Your task to perform on an android device: make emails show in primary in the gmail app Image 0: 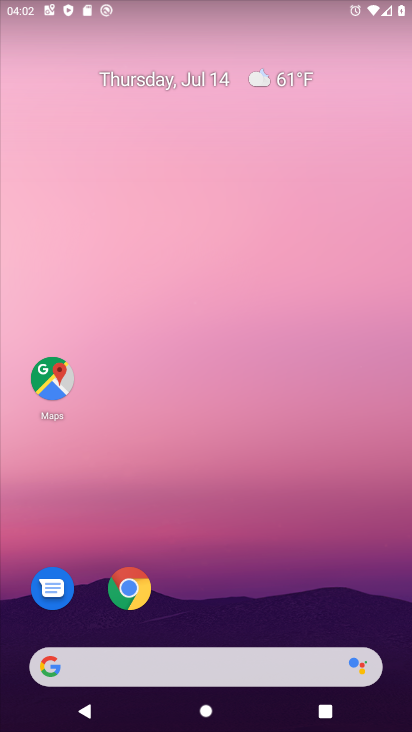
Step 0: press home button
Your task to perform on an android device: make emails show in primary in the gmail app Image 1: 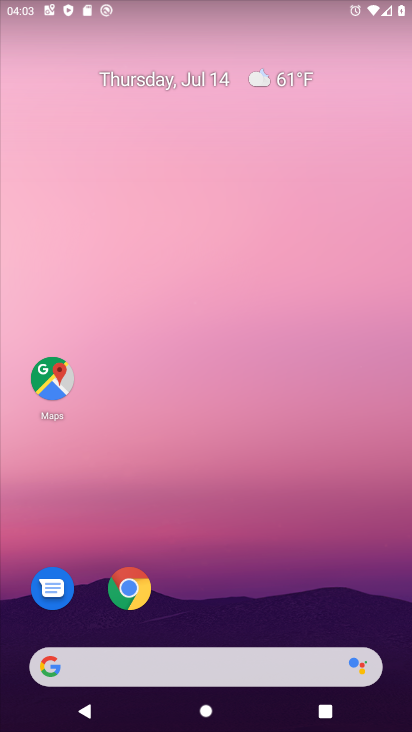
Step 1: drag from (329, 548) to (374, 34)
Your task to perform on an android device: make emails show in primary in the gmail app Image 2: 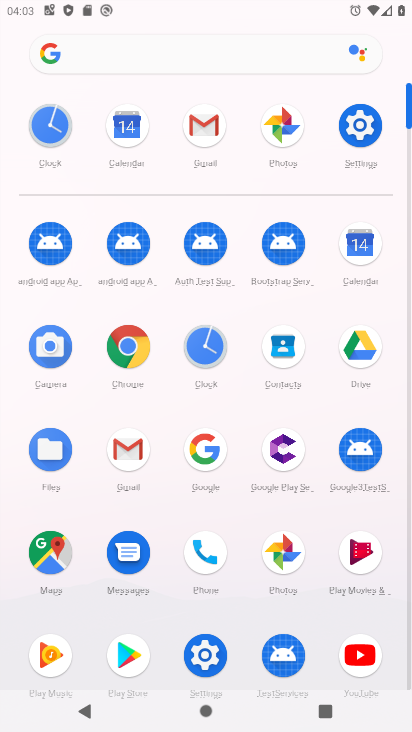
Step 2: click (204, 124)
Your task to perform on an android device: make emails show in primary in the gmail app Image 3: 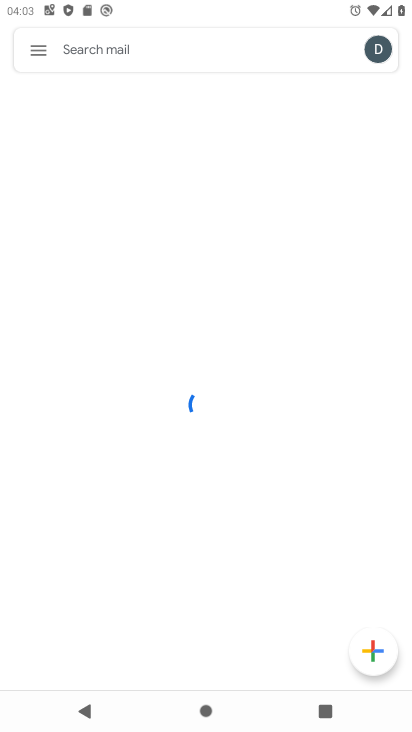
Step 3: click (42, 48)
Your task to perform on an android device: make emails show in primary in the gmail app Image 4: 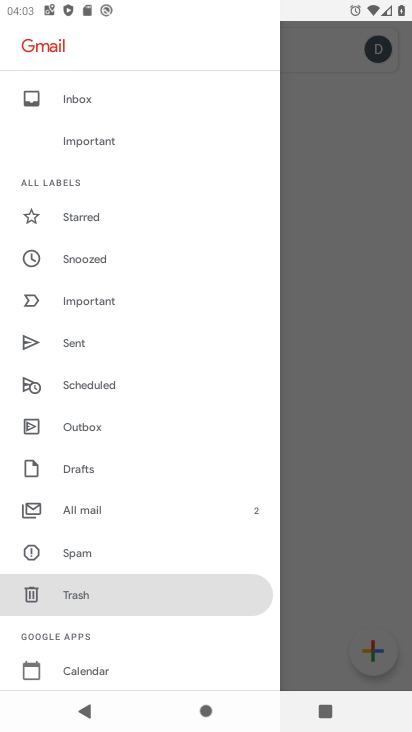
Step 4: drag from (135, 612) to (74, 157)
Your task to perform on an android device: make emails show in primary in the gmail app Image 5: 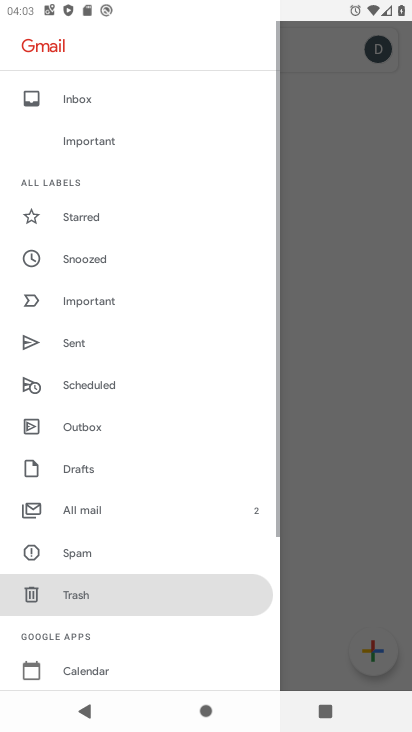
Step 5: drag from (141, 630) to (168, 270)
Your task to perform on an android device: make emails show in primary in the gmail app Image 6: 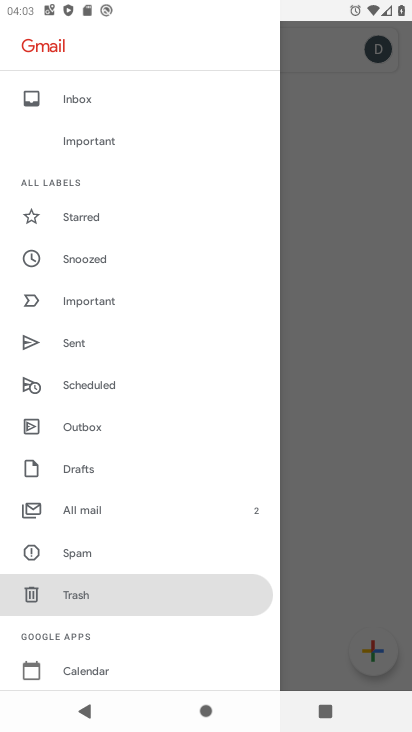
Step 6: drag from (215, 659) to (186, 68)
Your task to perform on an android device: make emails show in primary in the gmail app Image 7: 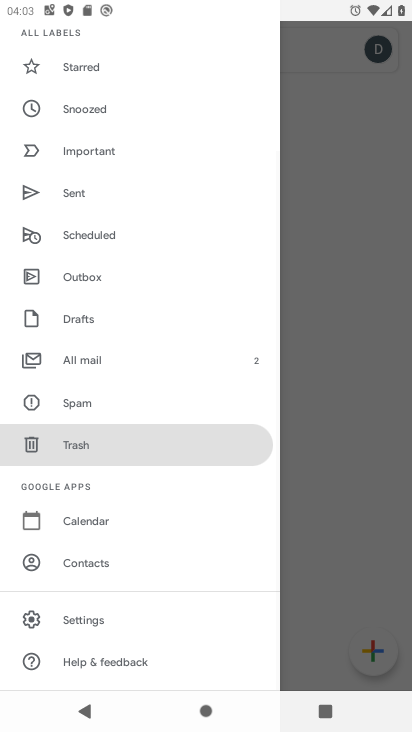
Step 7: click (88, 616)
Your task to perform on an android device: make emails show in primary in the gmail app Image 8: 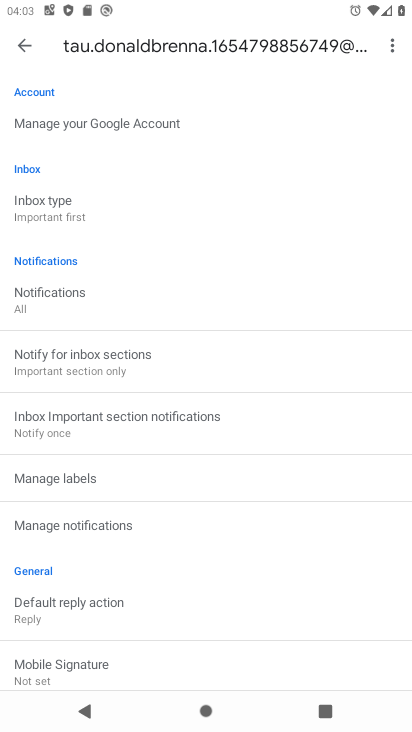
Step 8: click (41, 205)
Your task to perform on an android device: make emails show in primary in the gmail app Image 9: 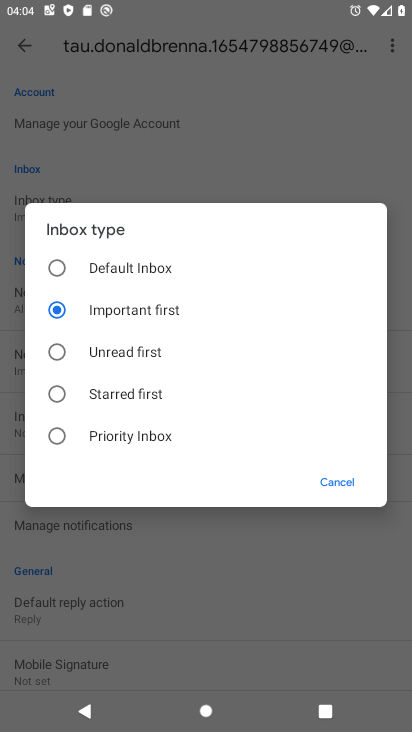
Step 9: click (128, 269)
Your task to perform on an android device: make emails show in primary in the gmail app Image 10: 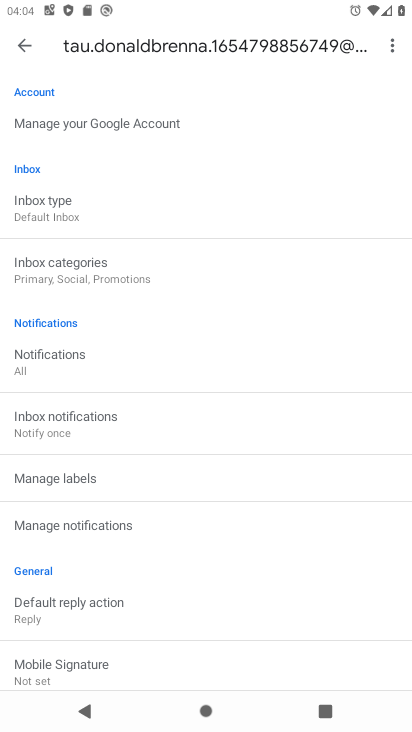
Step 10: click (73, 278)
Your task to perform on an android device: make emails show in primary in the gmail app Image 11: 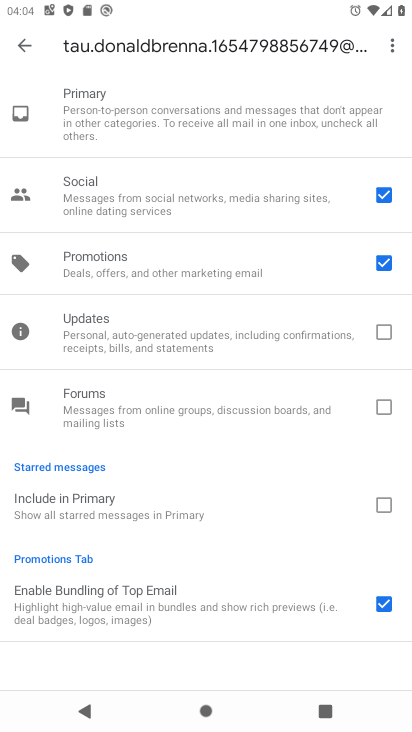
Step 11: click (378, 186)
Your task to perform on an android device: make emails show in primary in the gmail app Image 12: 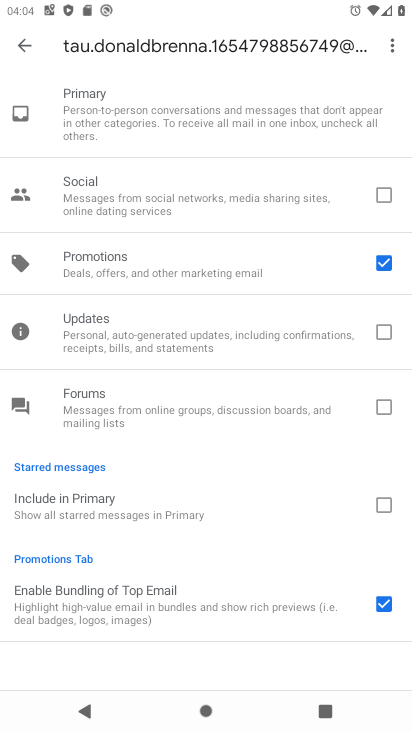
Step 12: click (388, 264)
Your task to perform on an android device: make emails show in primary in the gmail app Image 13: 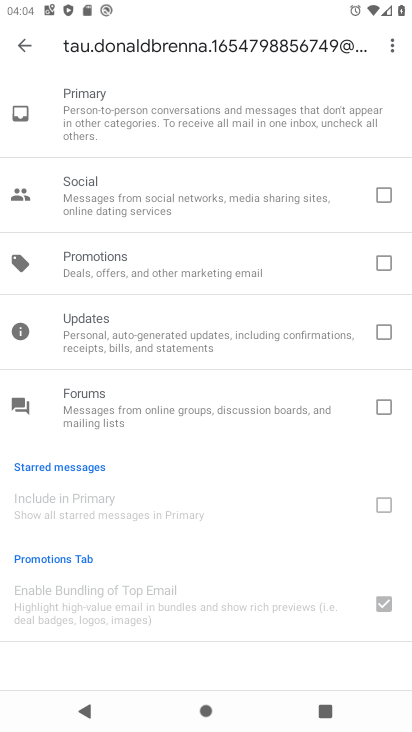
Step 13: task complete